Your task to perform on an android device: toggle translation in the chrome app Image 0: 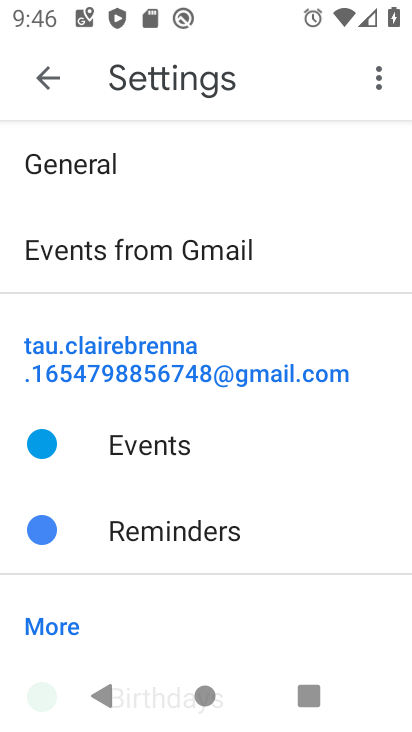
Step 0: press home button
Your task to perform on an android device: toggle translation in the chrome app Image 1: 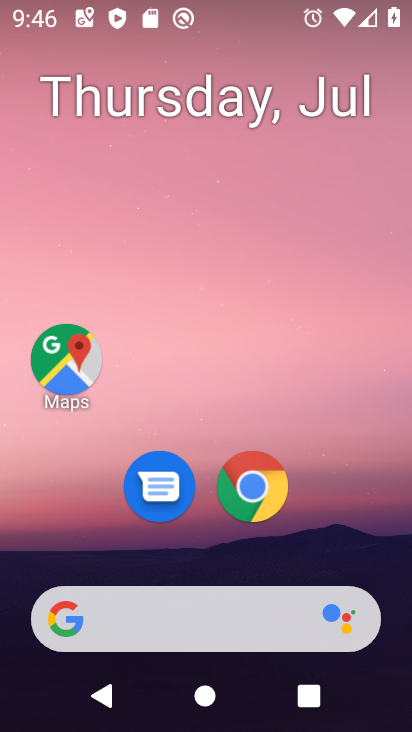
Step 1: drag from (168, 638) to (223, 317)
Your task to perform on an android device: toggle translation in the chrome app Image 2: 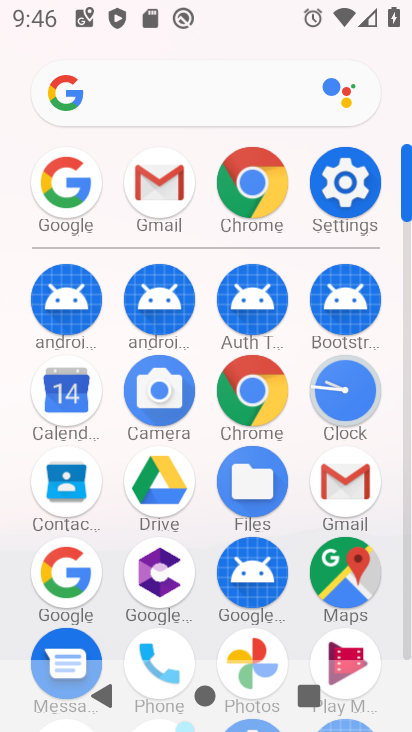
Step 2: drag from (215, 535) to (248, 406)
Your task to perform on an android device: toggle translation in the chrome app Image 3: 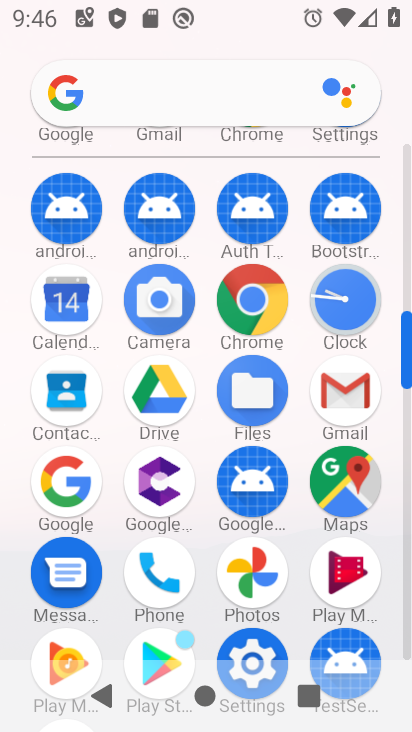
Step 3: click (259, 311)
Your task to perform on an android device: toggle translation in the chrome app Image 4: 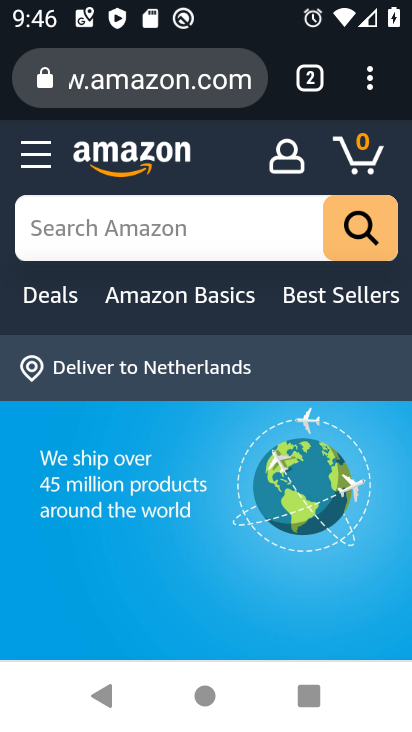
Step 4: click (373, 81)
Your task to perform on an android device: toggle translation in the chrome app Image 5: 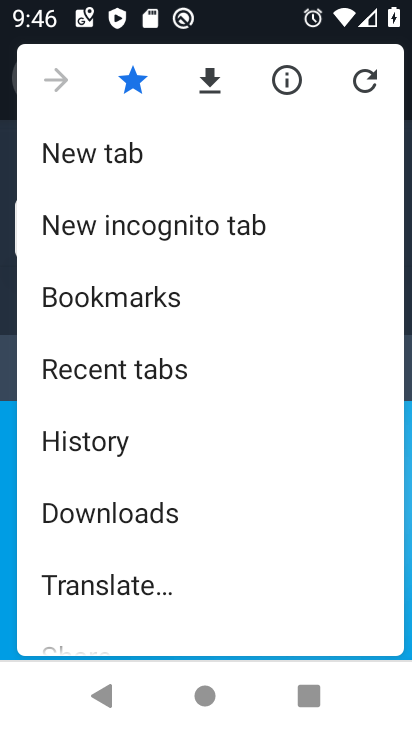
Step 5: drag from (184, 572) to (219, 385)
Your task to perform on an android device: toggle translation in the chrome app Image 6: 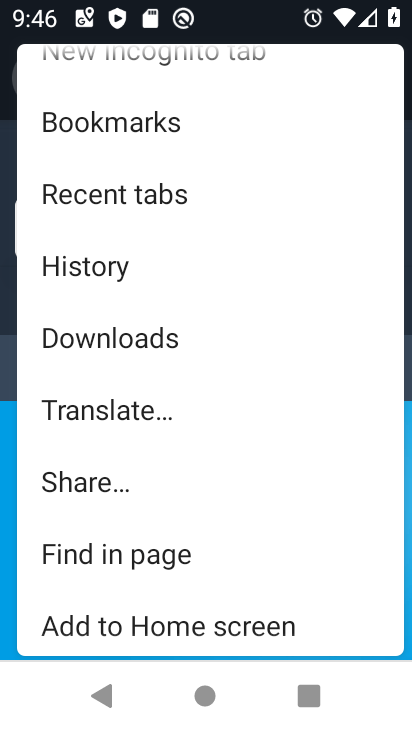
Step 6: click (151, 418)
Your task to perform on an android device: toggle translation in the chrome app Image 7: 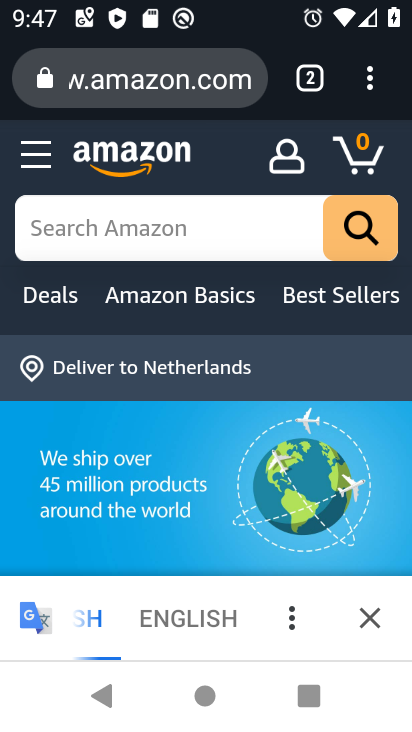
Step 7: click (279, 618)
Your task to perform on an android device: toggle translation in the chrome app Image 8: 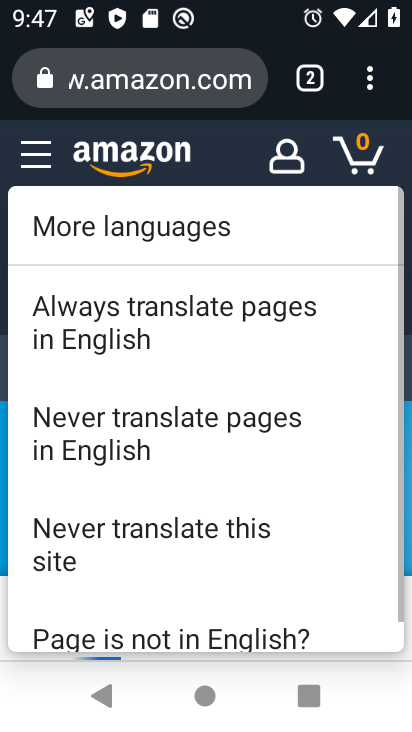
Step 8: click (259, 359)
Your task to perform on an android device: toggle translation in the chrome app Image 9: 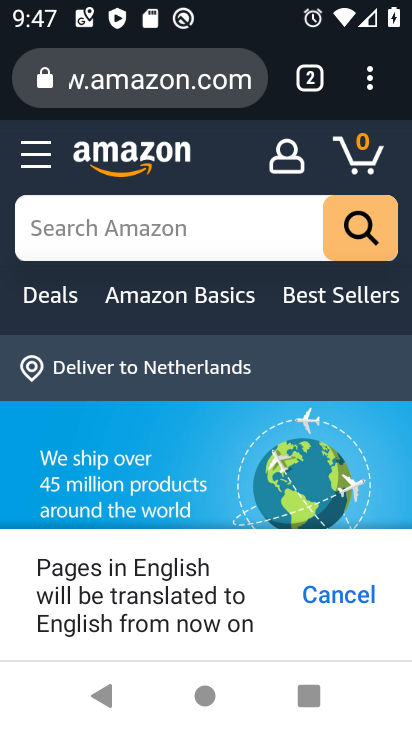
Step 9: task complete